Your task to perform on an android device: manage bookmarks in the chrome app Image 0: 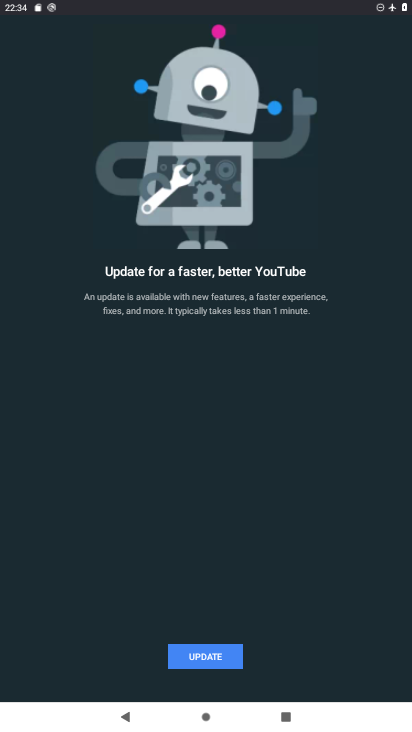
Step 0: press home button
Your task to perform on an android device: manage bookmarks in the chrome app Image 1: 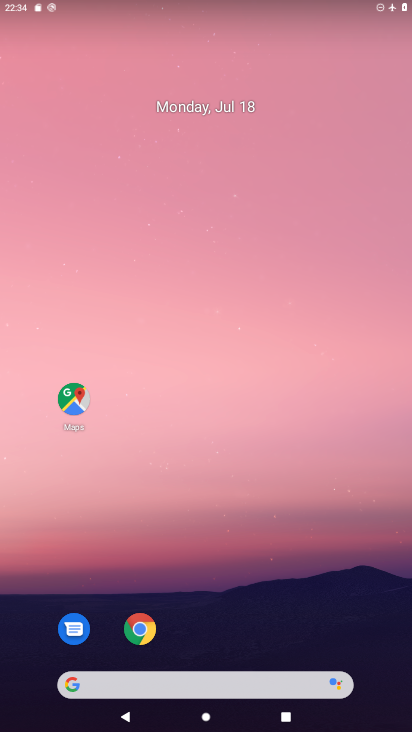
Step 1: drag from (312, 572) to (167, 67)
Your task to perform on an android device: manage bookmarks in the chrome app Image 2: 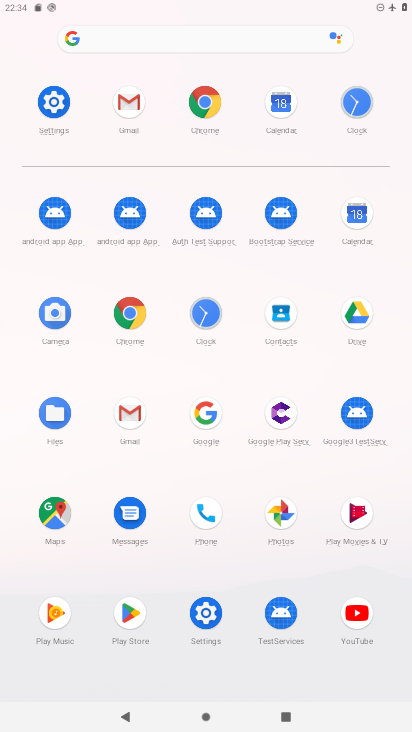
Step 2: click (209, 96)
Your task to perform on an android device: manage bookmarks in the chrome app Image 3: 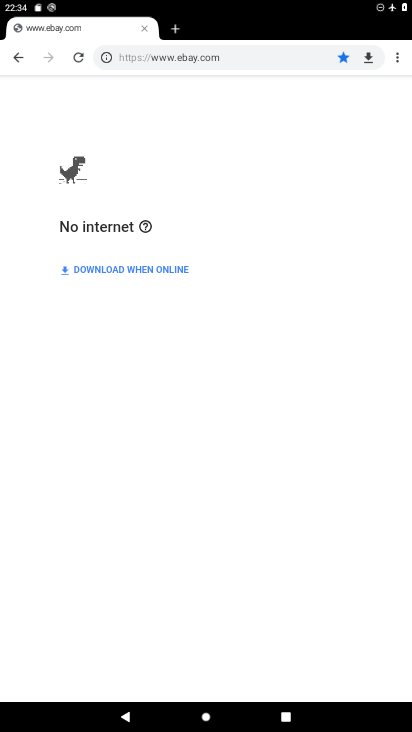
Step 3: drag from (400, 51) to (306, 166)
Your task to perform on an android device: manage bookmarks in the chrome app Image 4: 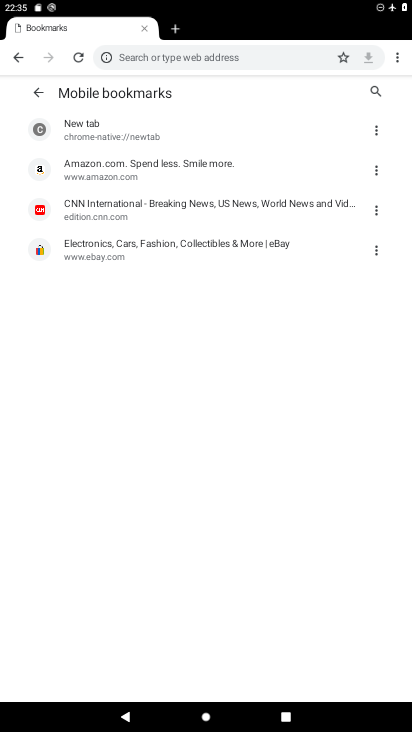
Step 4: click (373, 206)
Your task to perform on an android device: manage bookmarks in the chrome app Image 5: 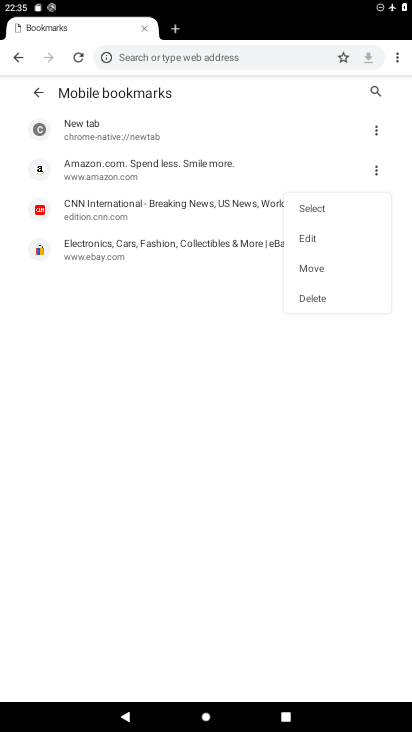
Step 5: click (320, 292)
Your task to perform on an android device: manage bookmarks in the chrome app Image 6: 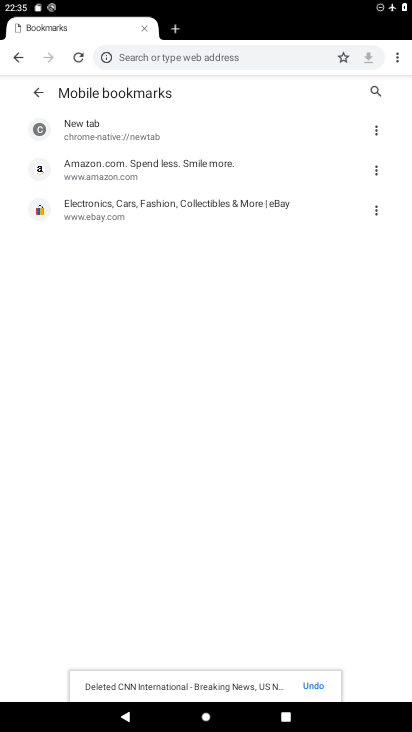
Step 6: task complete